Your task to perform on an android device: Check the weather Image 0: 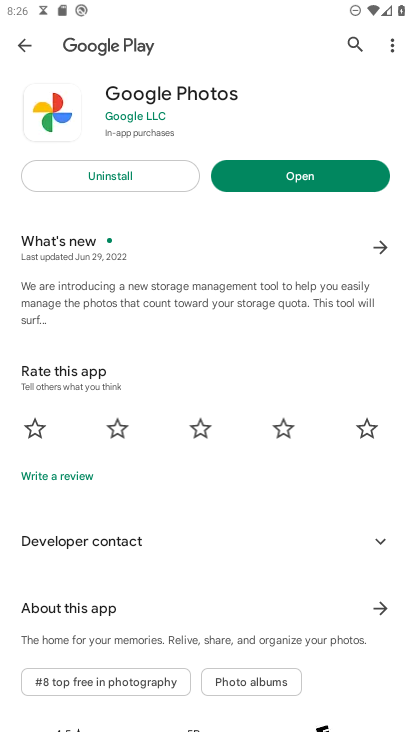
Step 0: press home button
Your task to perform on an android device: Check the weather Image 1: 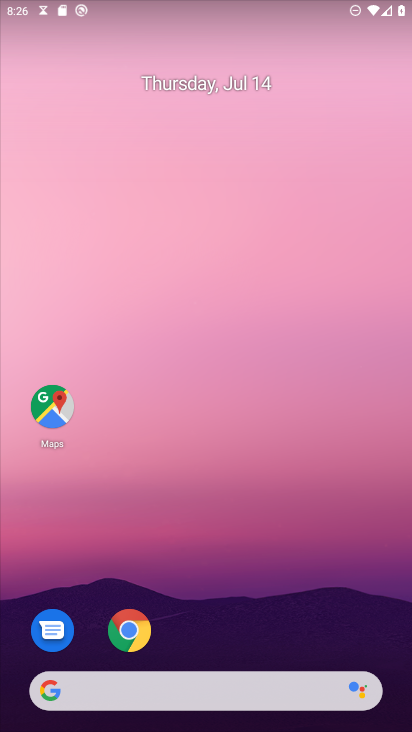
Step 1: click (138, 691)
Your task to perform on an android device: Check the weather Image 2: 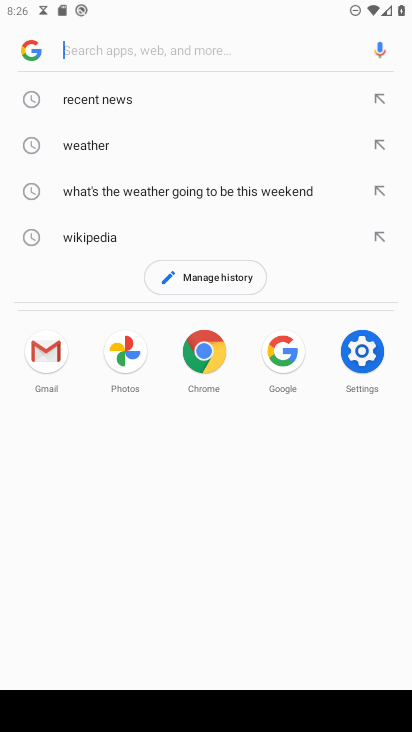
Step 2: type "weather"
Your task to perform on an android device: Check the weather Image 3: 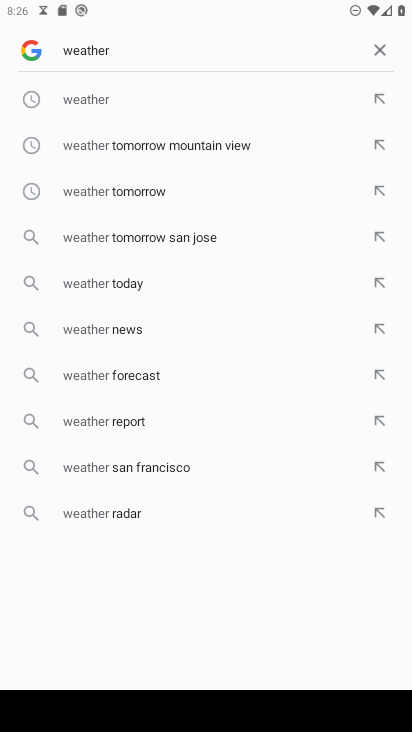
Step 3: click (233, 91)
Your task to perform on an android device: Check the weather Image 4: 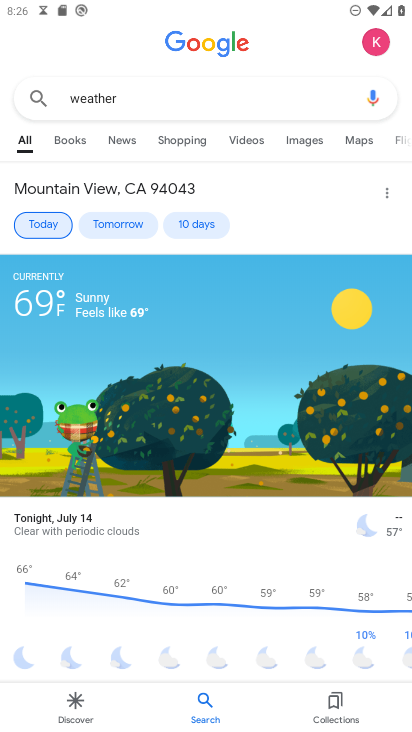
Step 4: task complete